Your task to perform on an android device: Open calendar and show me the fourth week of next month Image 0: 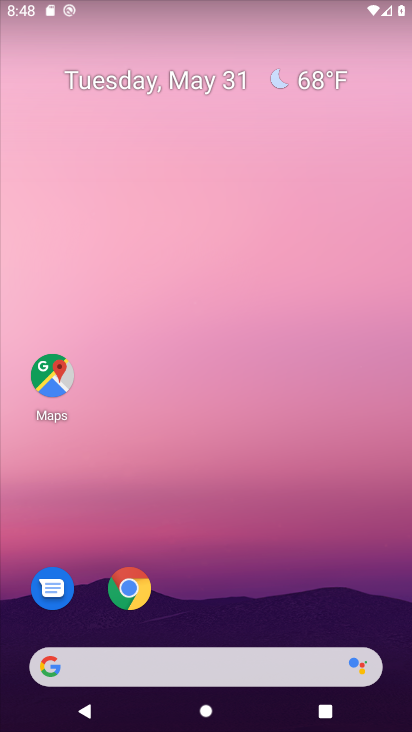
Step 0: drag from (233, 650) to (304, 193)
Your task to perform on an android device: Open calendar and show me the fourth week of next month Image 1: 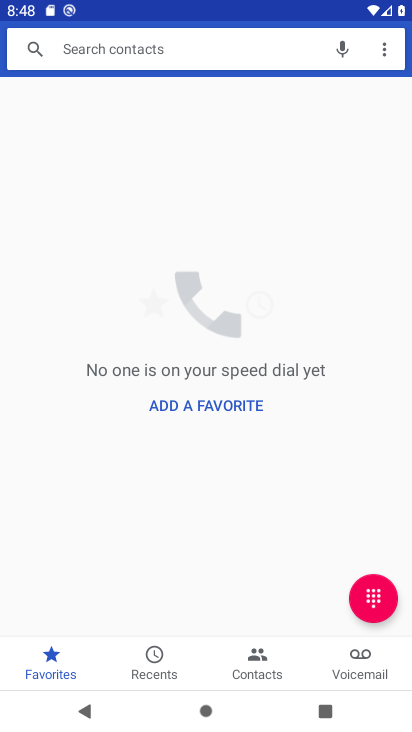
Step 1: press home button
Your task to perform on an android device: Open calendar and show me the fourth week of next month Image 2: 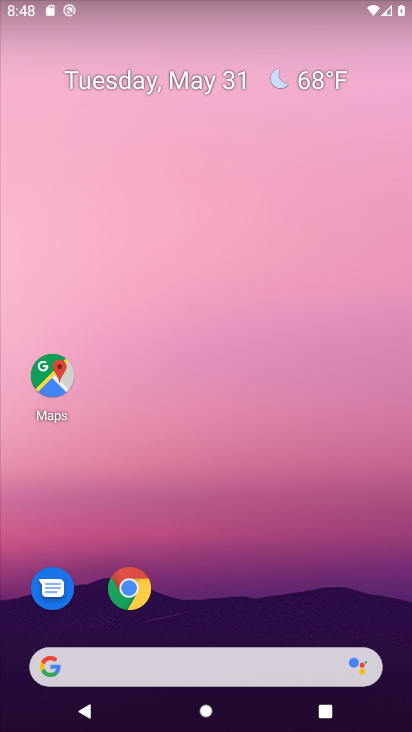
Step 2: drag from (249, 665) to (348, 54)
Your task to perform on an android device: Open calendar and show me the fourth week of next month Image 3: 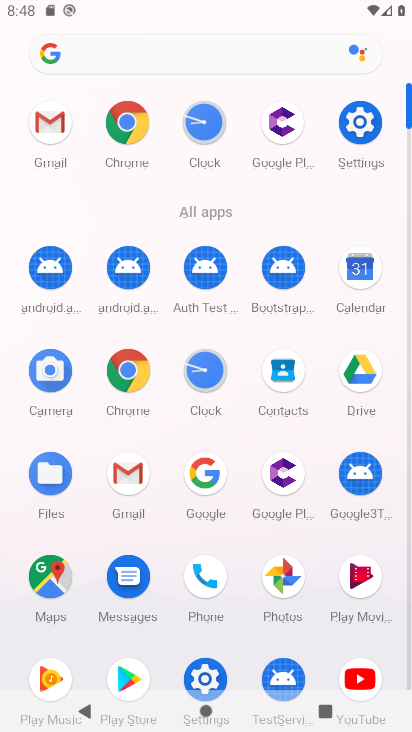
Step 3: click (370, 277)
Your task to perform on an android device: Open calendar and show me the fourth week of next month Image 4: 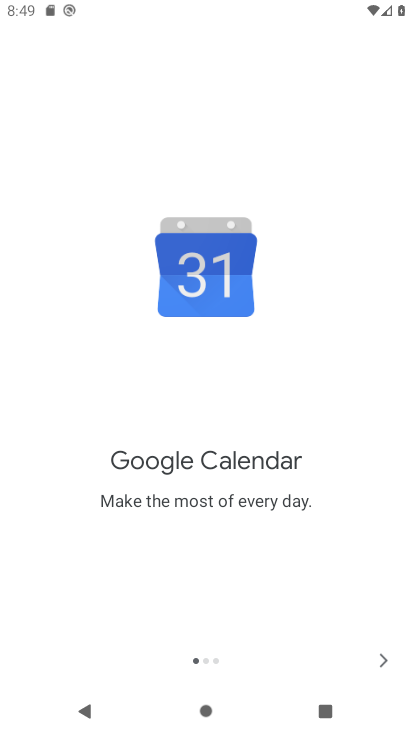
Step 4: click (378, 658)
Your task to perform on an android device: Open calendar and show me the fourth week of next month Image 5: 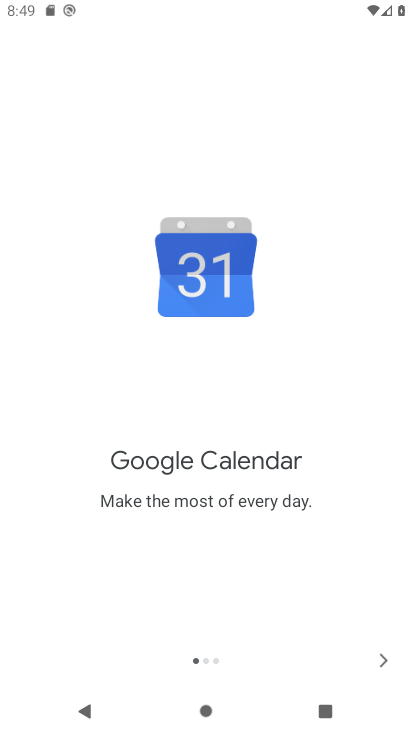
Step 5: click (380, 657)
Your task to perform on an android device: Open calendar and show me the fourth week of next month Image 6: 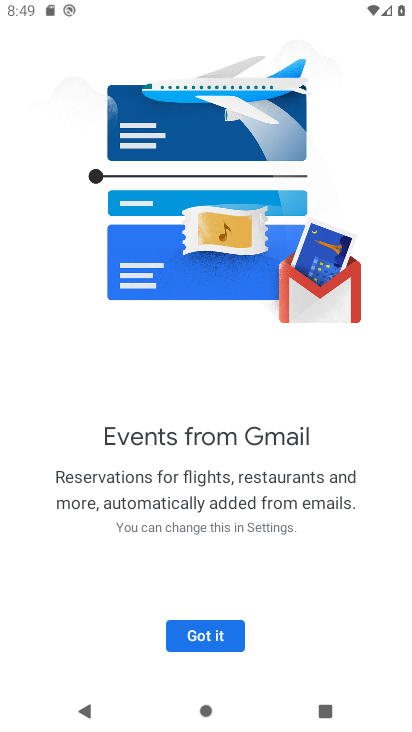
Step 6: click (385, 657)
Your task to perform on an android device: Open calendar and show me the fourth week of next month Image 7: 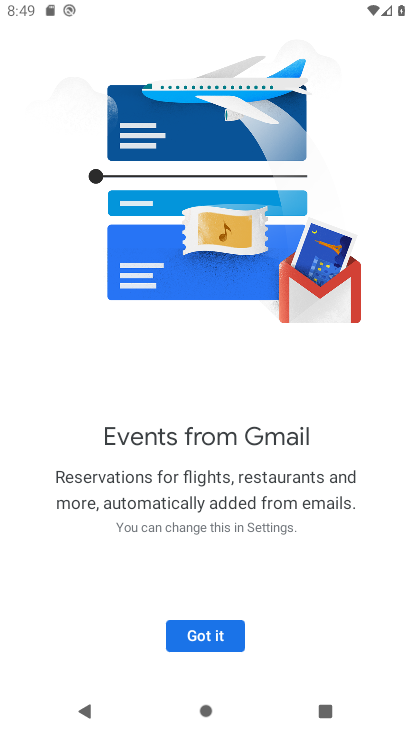
Step 7: click (207, 637)
Your task to perform on an android device: Open calendar and show me the fourth week of next month Image 8: 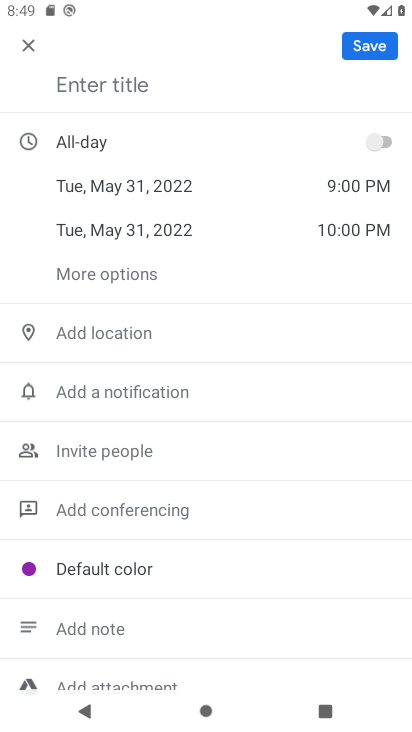
Step 8: click (28, 49)
Your task to perform on an android device: Open calendar and show me the fourth week of next month Image 9: 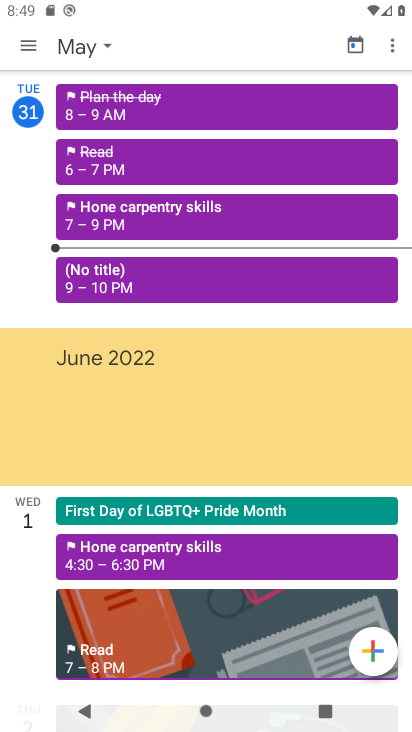
Step 9: click (87, 43)
Your task to perform on an android device: Open calendar and show me the fourth week of next month Image 10: 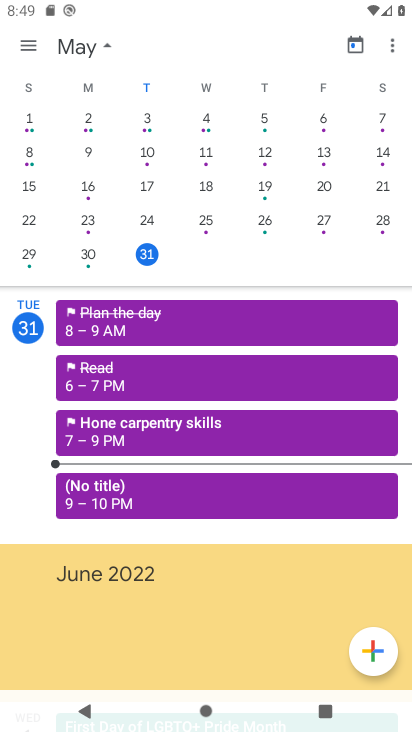
Step 10: drag from (330, 201) to (52, 207)
Your task to perform on an android device: Open calendar and show me the fourth week of next month Image 11: 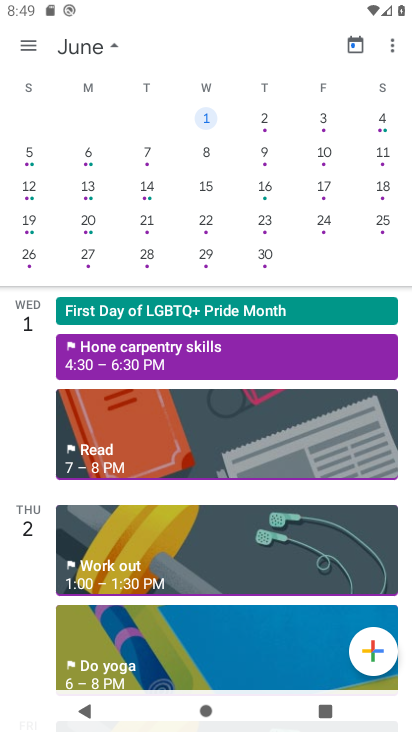
Step 11: click (25, 224)
Your task to perform on an android device: Open calendar and show me the fourth week of next month Image 12: 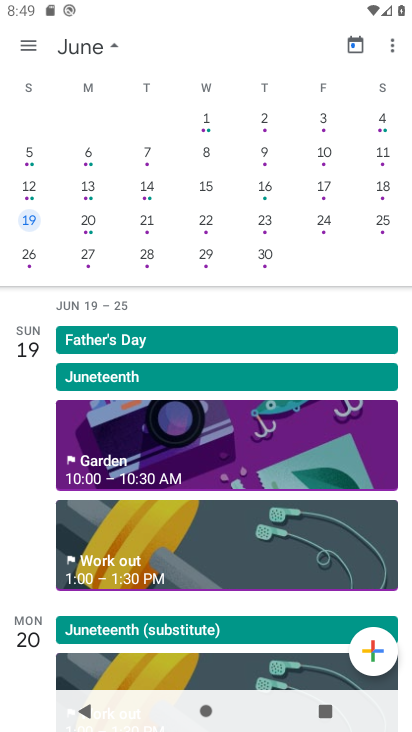
Step 12: click (31, 44)
Your task to perform on an android device: Open calendar and show me the fourth week of next month Image 13: 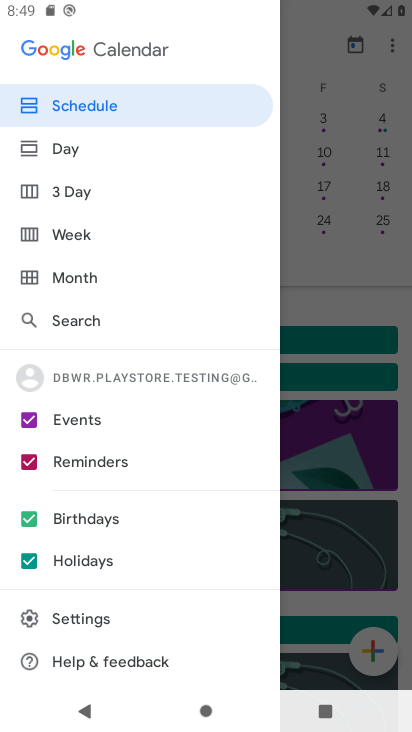
Step 13: click (67, 238)
Your task to perform on an android device: Open calendar and show me the fourth week of next month Image 14: 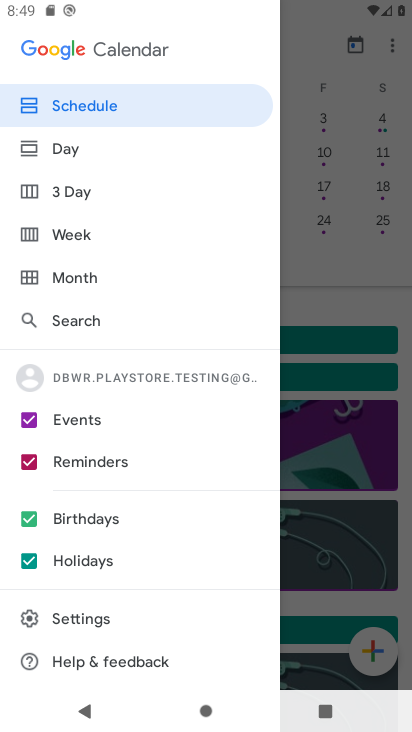
Step 14: click (67, 238)
Your task to perform on an android device: Open calendar and show me the fourth week of next month Image 15: 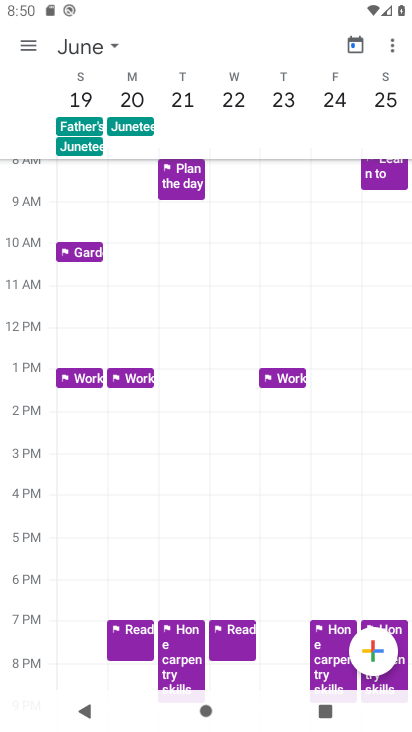
Step 15: task complete